Your task to perform on an android device: make emails show in primary in the gmail app Image 0: 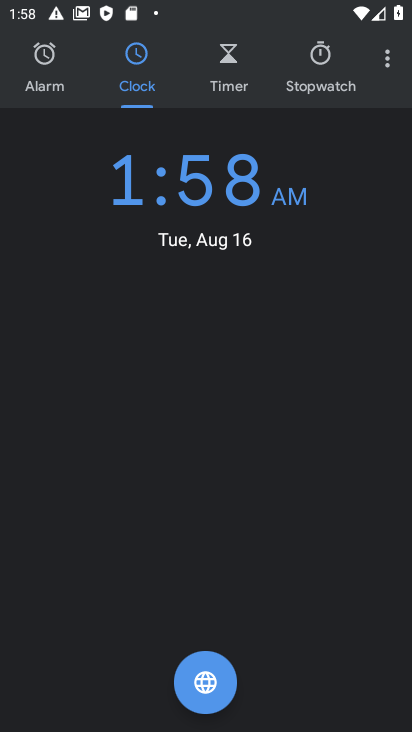
Step 0: press home button
Your task to perform on an android device: make emails show in primary in the gmail app Image 1: 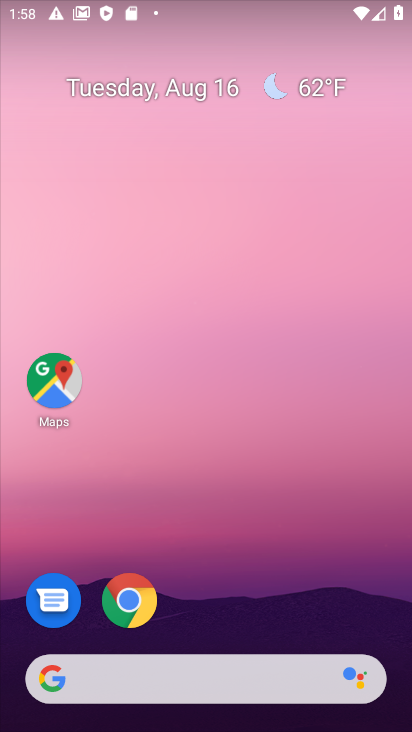
Step 1: drag from (210, 587) to (159, 120)
Your task to perform on an android device: make emails show in primary in the gmail app Image 2: 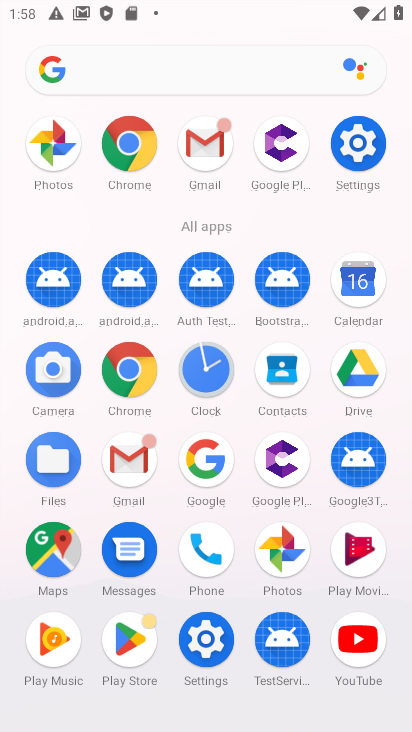
Step 2: click (145, 457)
Your task to perform on an android device: make emails show in primary in the gmail app Image 3: 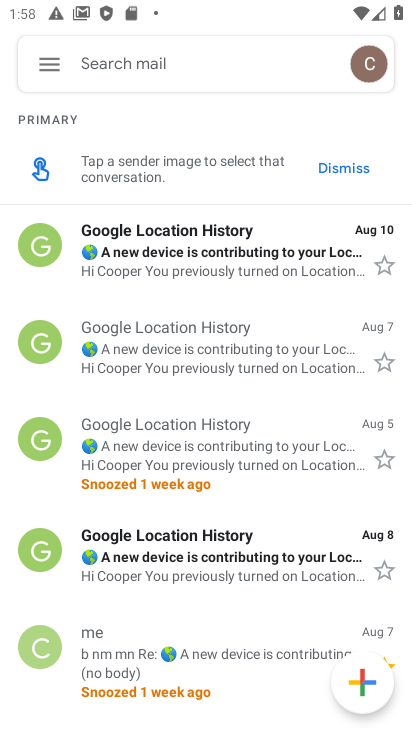
Step 3: click (61, 59)
Your task to perform on an android device: make emails show in primary in the gmail app Image 4: 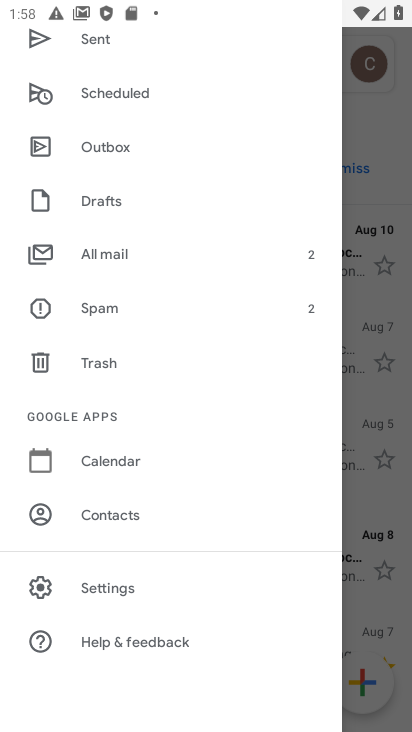
Step 4: click (116, 584)
Your task to perform on an android device: make emails show in primary in the gmail app Image 5: 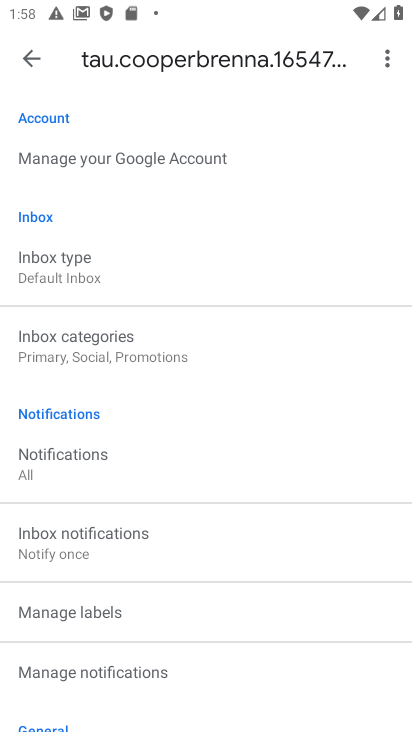
Step 5: click (120, 272)
Your task to perform on an android device: make emails show in primary in the gmail app Image 6: 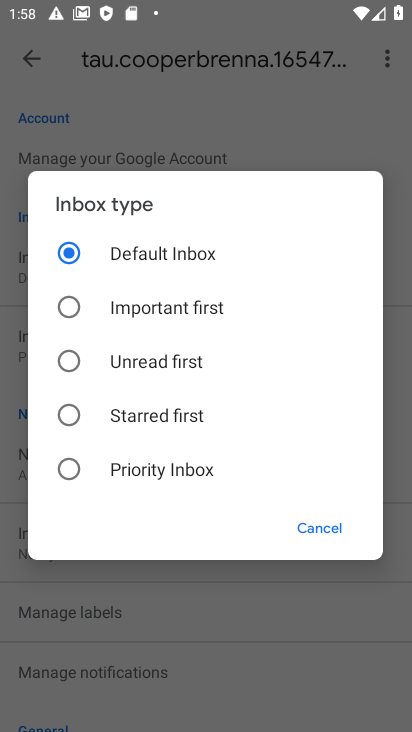
Step 6: click (109, 244)
Your task to perform on an android device: make emails show in primary in the gmail app Image 7: 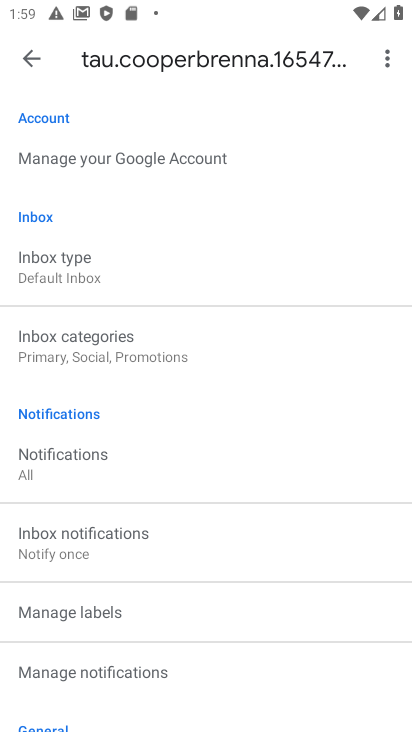
Step 7: click (111, 331)
Your task to perform on an android device: make emails show in primary in the gmail app Image 8: 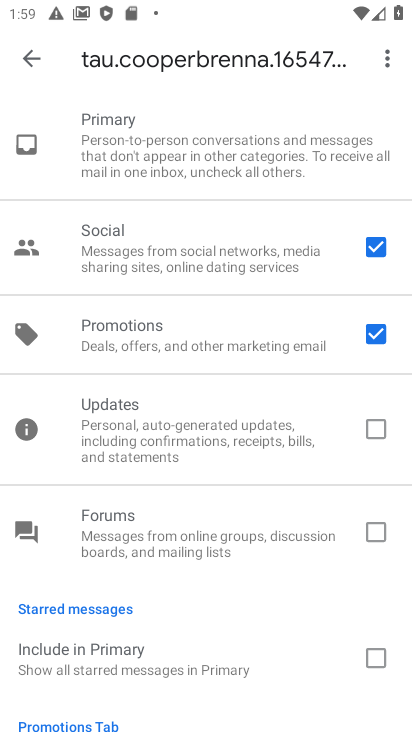
Step 8: click (378, 245)
Your task to perform on an android device: make emails show in primary in the gmail app Image 9: 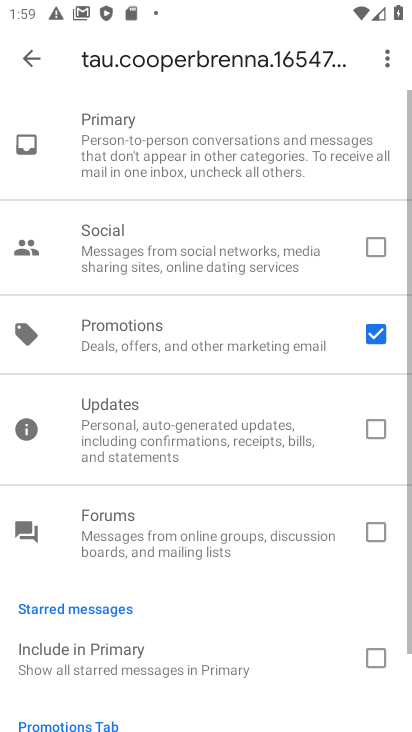
Step 9: click (378, 315)
Your task to perform on an android device: make emails show in primary in the gmail app Image 10: 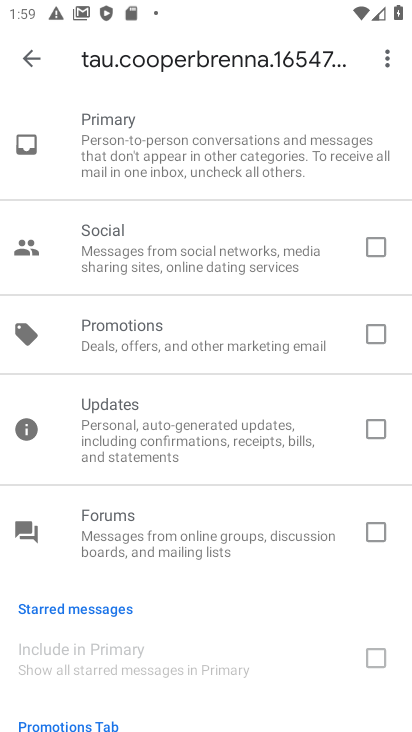
Step 10: task complete